Your task to perform on an android device: turn on the 24-hour format for clock Image 0: 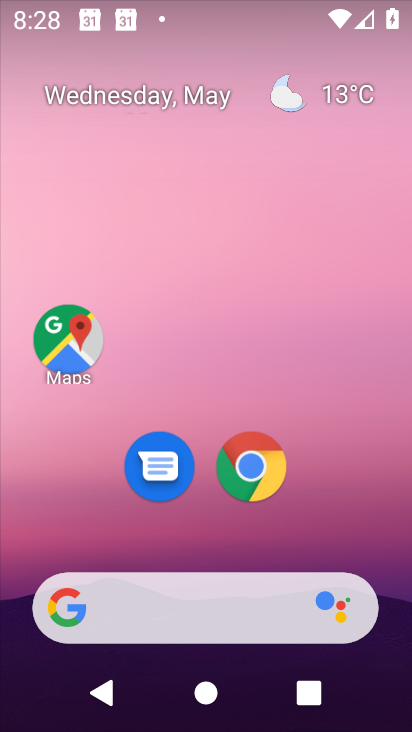
Step 0: drag from (208, 534) to (212, 35)
Your task to perform on an android device: turn on the 24-hour format for clock Image 1: 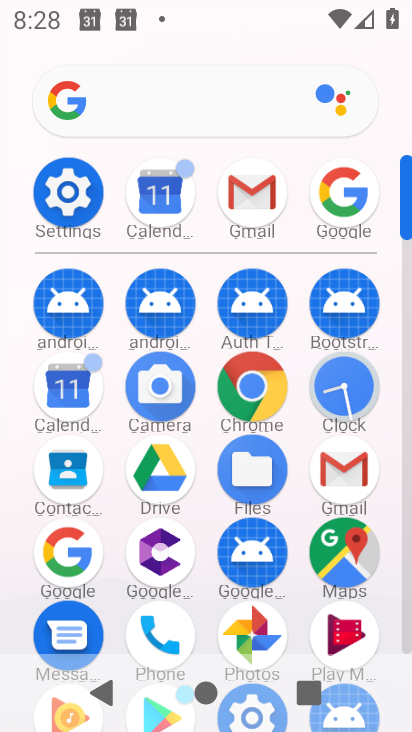
Step 1: click (340, 383)
Your task to perform on an android device: turn on the 24-hour format for clock Image 2: 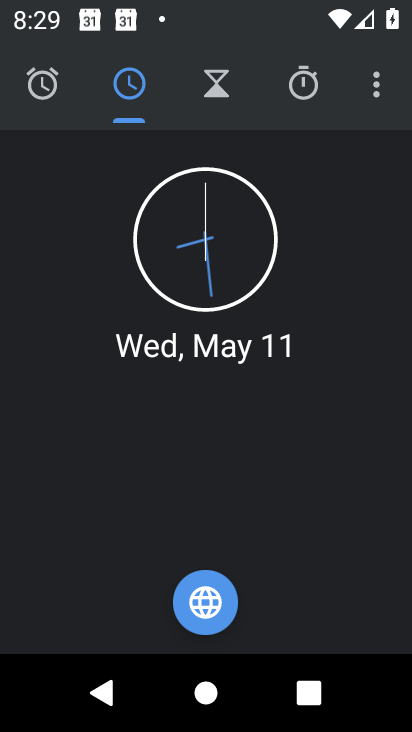
Step 2: click (375, 81)
Your task to perform on an android device: turn on the 24-hour format for clock Image 3: 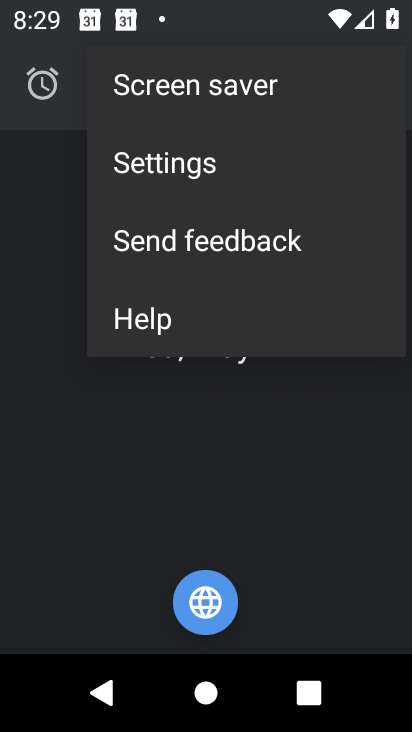
Step 3: click (237, 163)
Your task to perform on an android device: turn on the 24-hour format for clock Image 4: 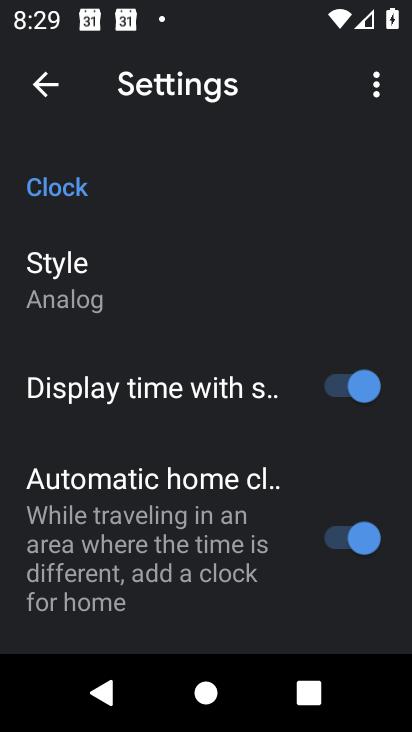
Step 4: drag from (213, 605) to (221, 42)
Your task to perform on an android device: turn on the 24-hour format for clock Image 5: 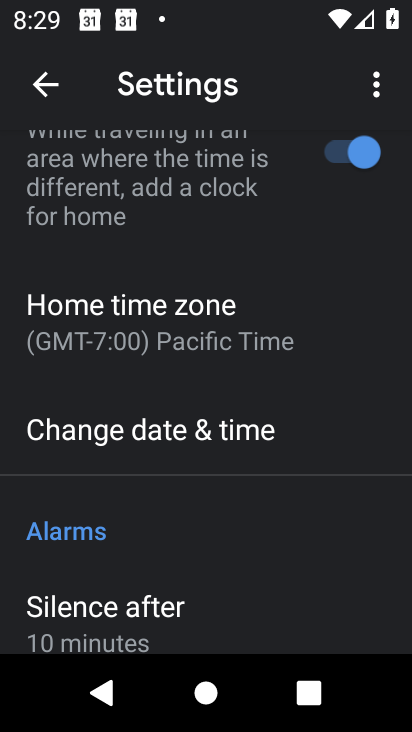
Step 5: click (189, 428)
Your task to perform on an android device: turn on the 24-hour format for clock Image 6: 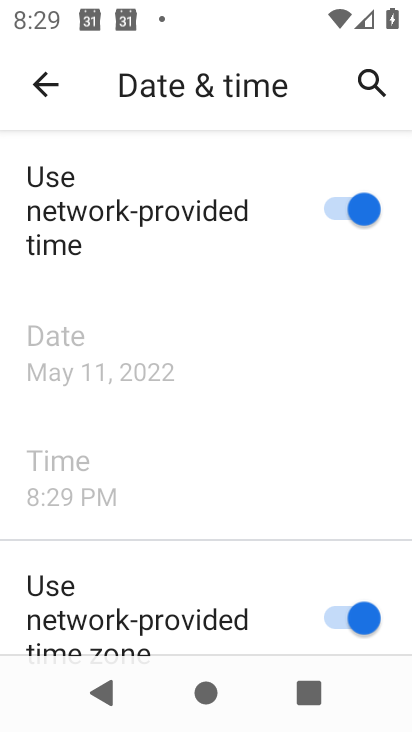
Step 6: drag from (242, 576) to (236, 53)
Your task to perform on an android device: turn on the 24-hour format for clock Image 7: 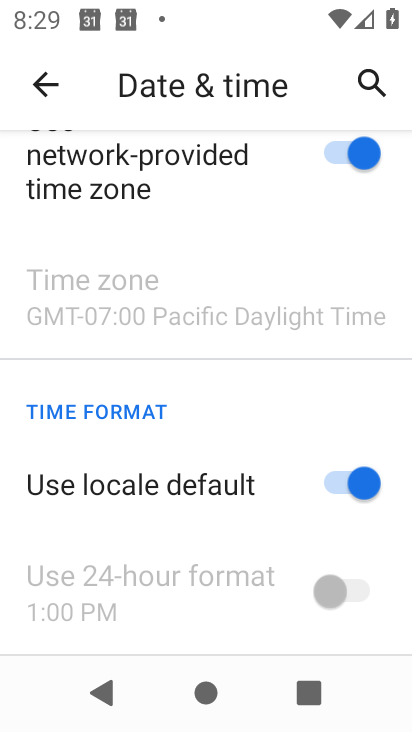
Step 7: click (330, 482)
Your task to perform on an android device: turn on the 24-hour format for clock Image 8: 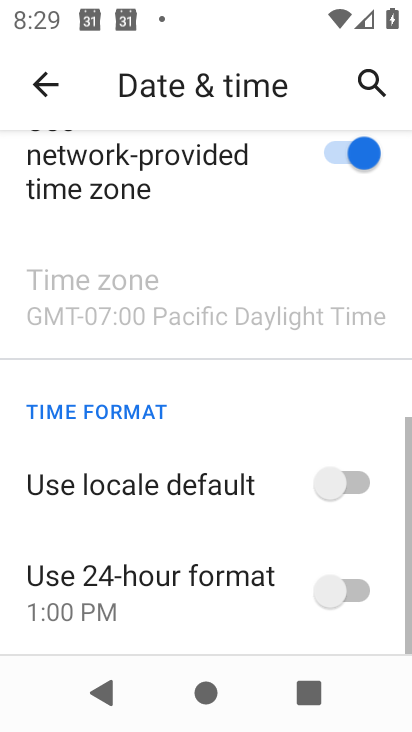
Step 8: click (345, 589)
Your task to perform on an android device: turn on the 24-hour format for clock Image 9: 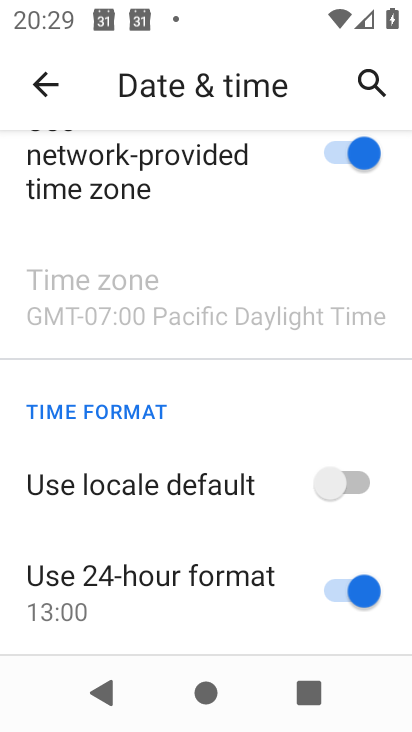
Step 9: task complete